Your task to perform on an android device: turn off wifi Image 0: 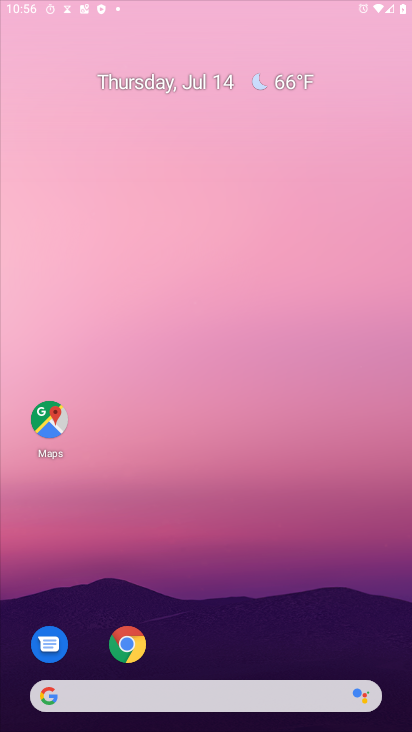
Step 0: click (151, 108)
Your task to perform on an android device: turn off wifi Image 1: 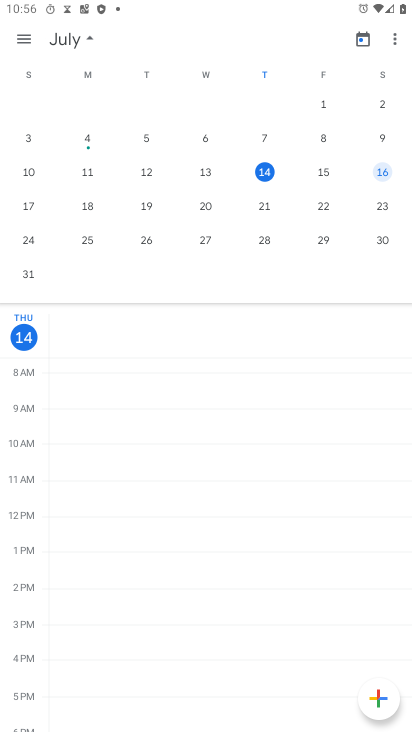
Step 1: drag from (230, 613) to (206, 61)
Your task to perform on an android device: turn off wifi Image 2: 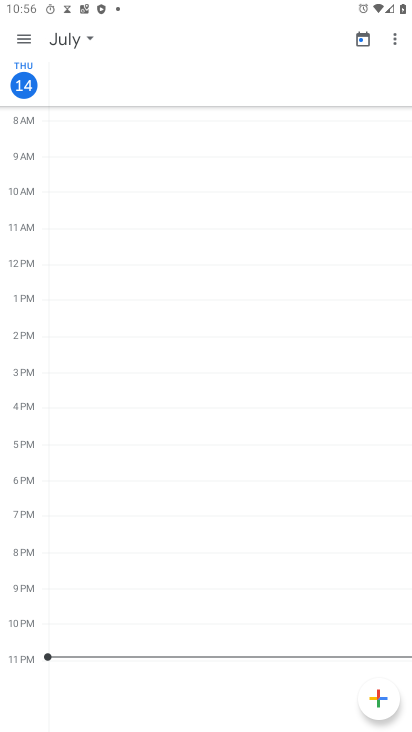
Step 2: press back button
Your task to perform on an android device: turn off wifi Image 3: 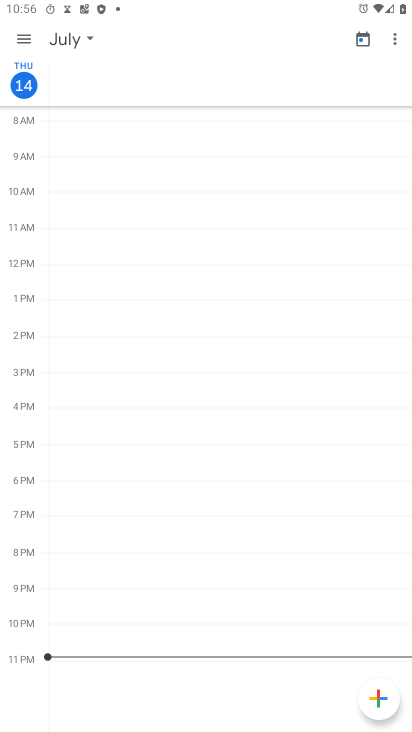
Step 3: press back button
Your task to perform on an android device: turn off wifi Image 4: 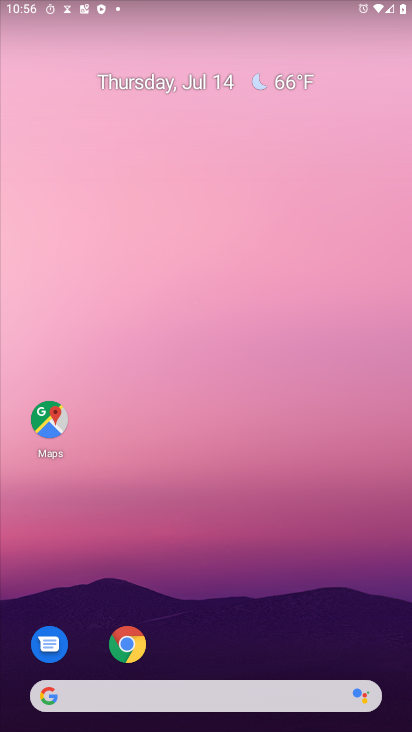
Step 4: drag from (280, 644) to (257, 46)
Your task to perform on an android device: turn off wifi Image 5: 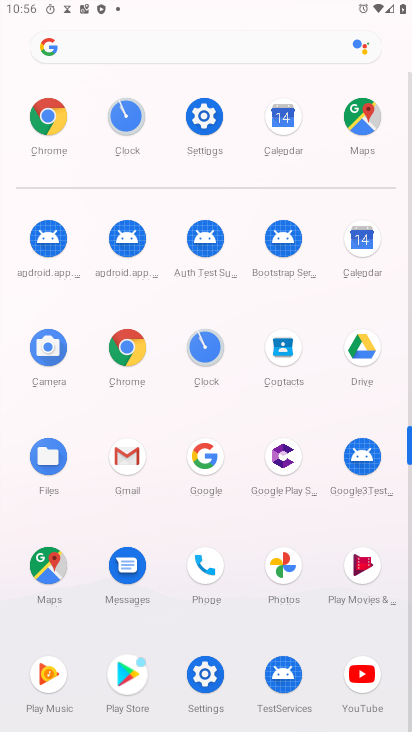
Step 5: click (206, 118)
Your task to perform on an android device: turn off wifi Image 6: 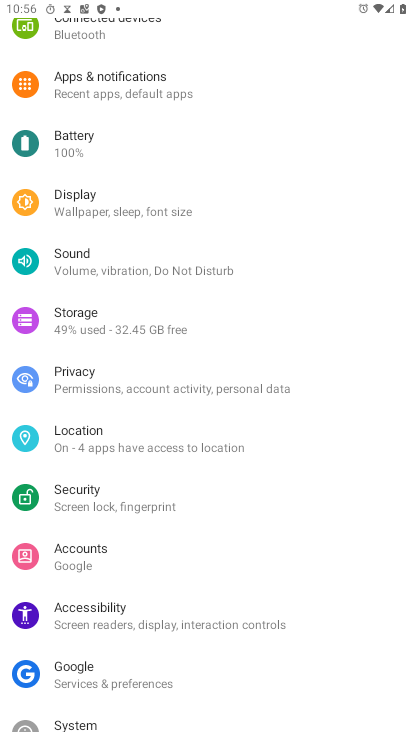
Step 6: drag from (72, 136) to (89, 430)
Your task to perform on an android device: turn off wifi Image 7: 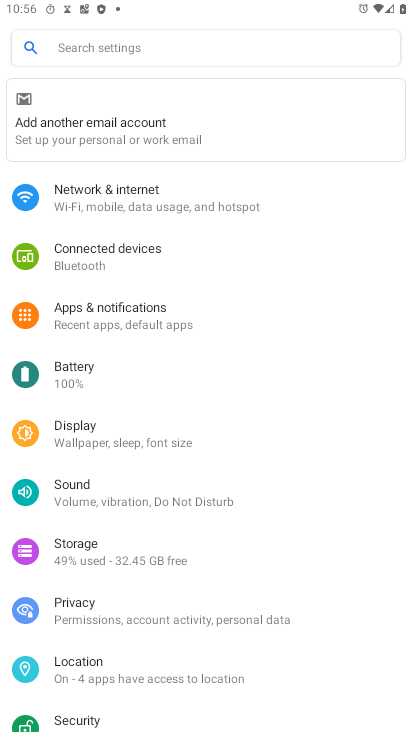
Step 7: click (109, 197)
Your task to perform on an android device: turn off wifi Image 8: 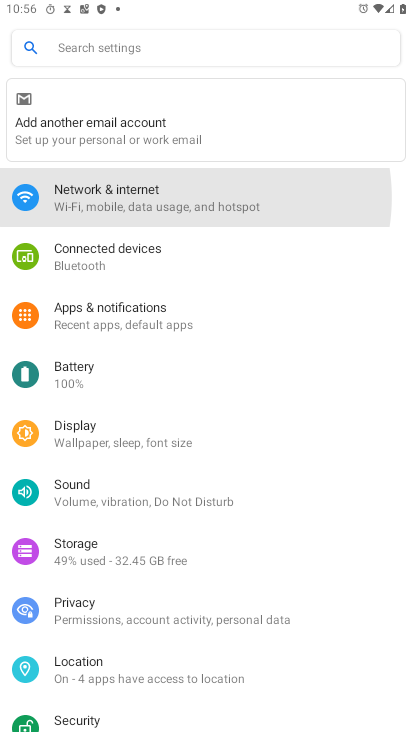
Step 8: click (115, 204)
Your task to perform on an android device: turn off wifi Image 9: 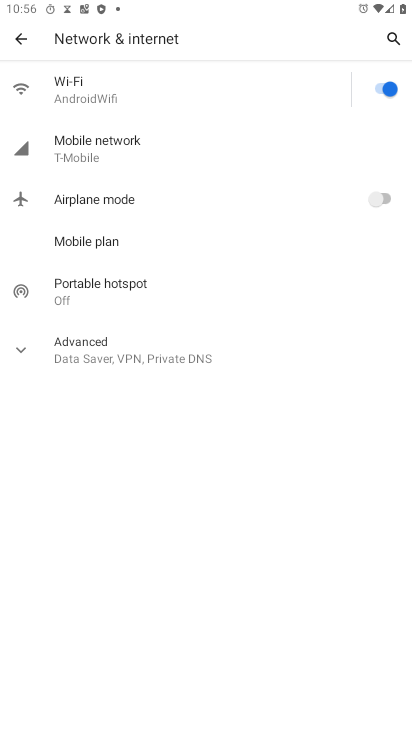
Step 9: click (388, 82)
Your task to perform on an android device: turn off wifi Image 10: 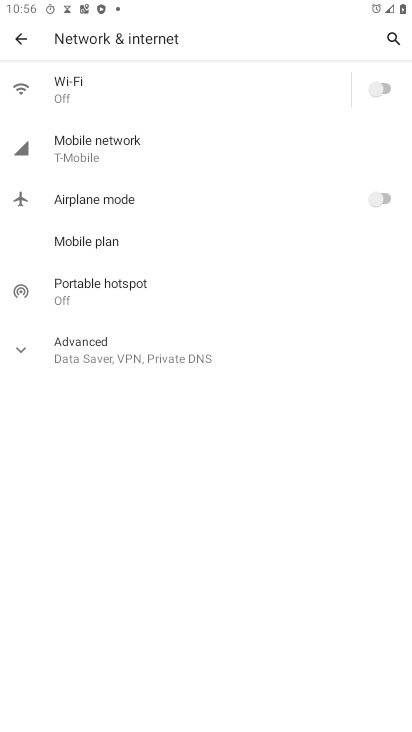
Step 10: task complete